Your task to perform on an android device: Open Google Image 0: 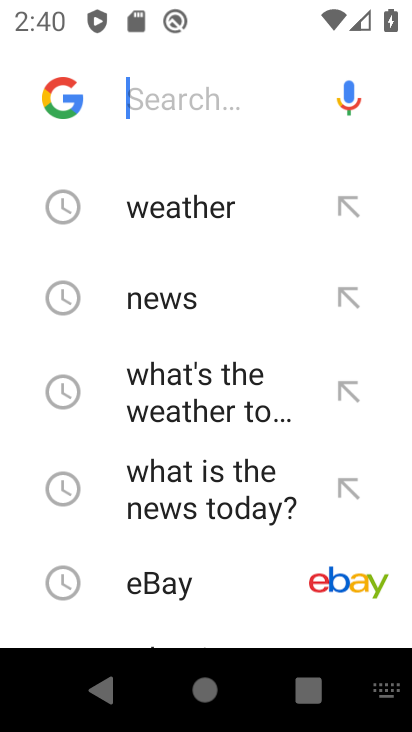
Step 0: press home button
Your task to perform on an android device: Open Google Image 1: 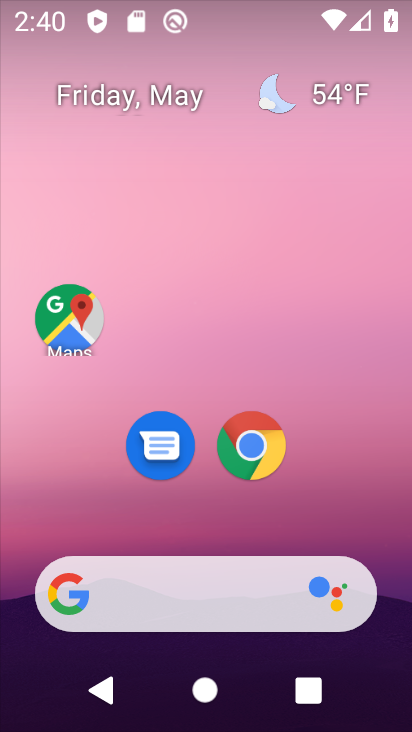
Step 1: drag from (389, 478) to (397, 189)
Your task to perform on an android device: Open Google Image 2: 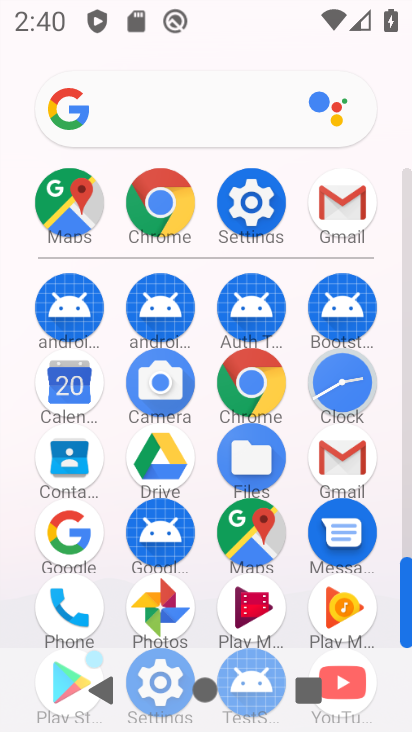
Step 2: click (72, 540)
Your task to perform on an android device: Open Google Image 3: 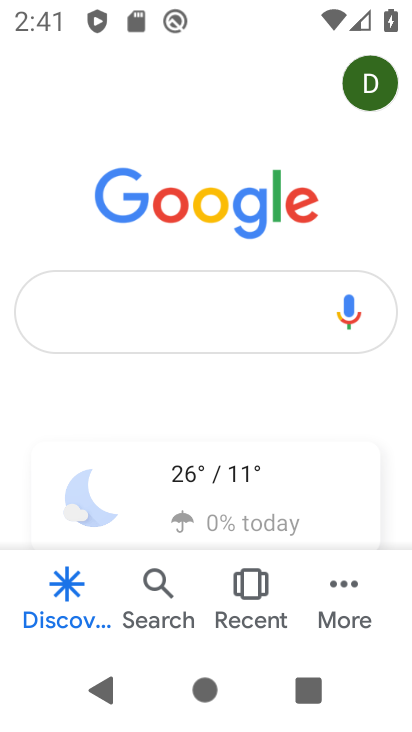
Step 3: task complete